Your task to perform on an android device: Do I have any events today? Image 0: 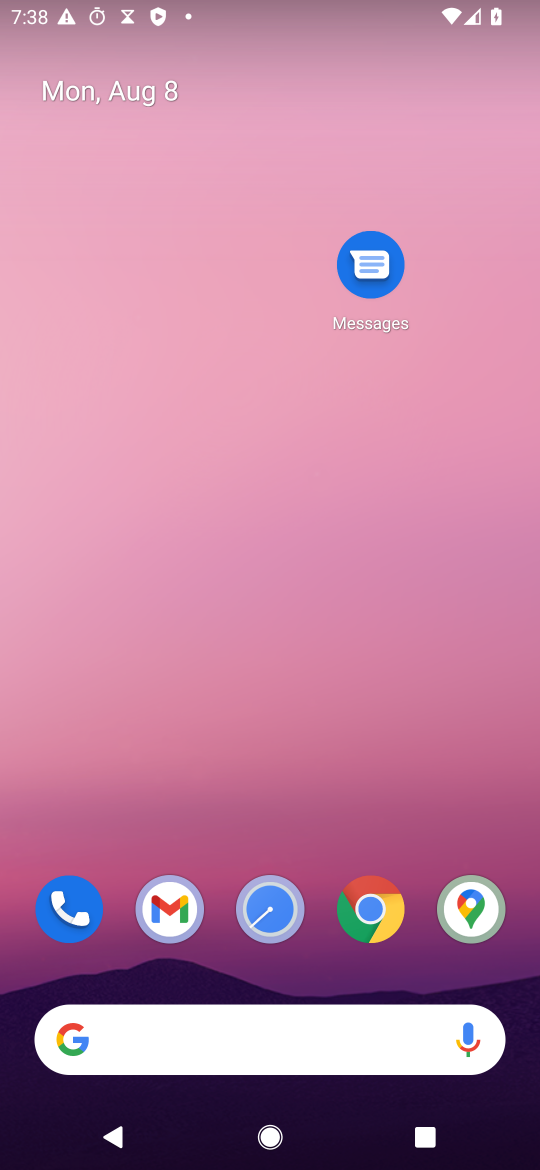
Step 0: press home button
Your task to perform on an android device: Do I have any events today? Image 1: 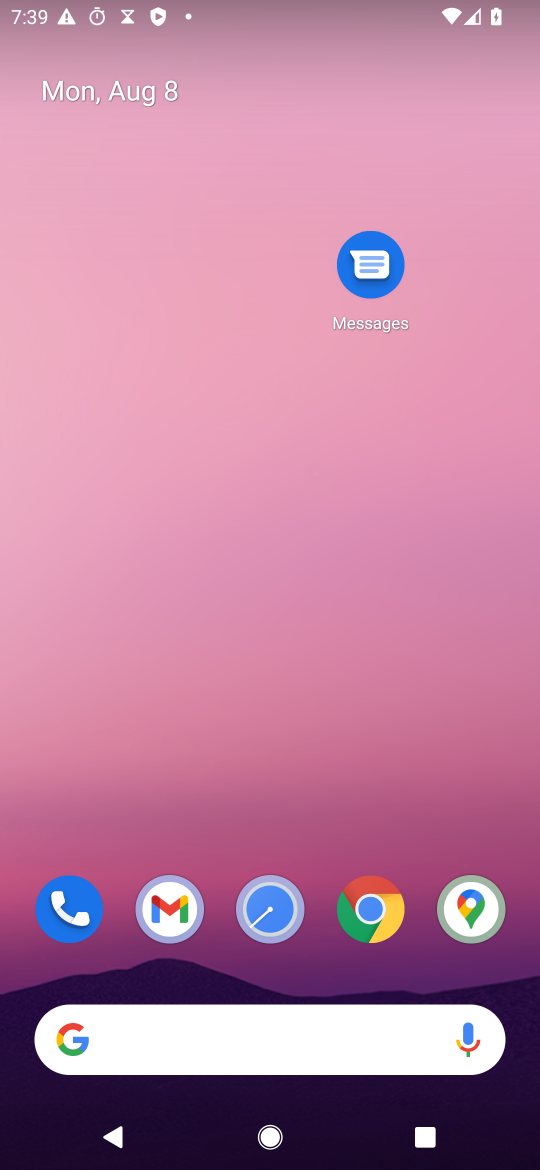
Step 1: drag from (204, 938) to (303, 210)
Your task to perform on an android device: Do I have any events today? Image 2: 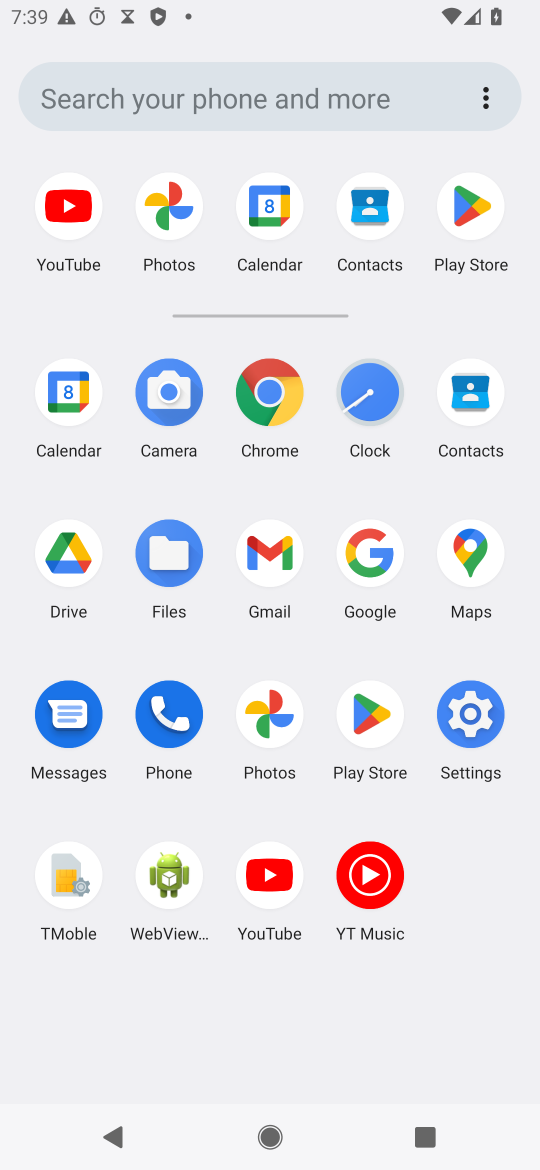
Step 2: click (274, 222)
Your task to perform on an android device: Do I have any events today? Image 3: 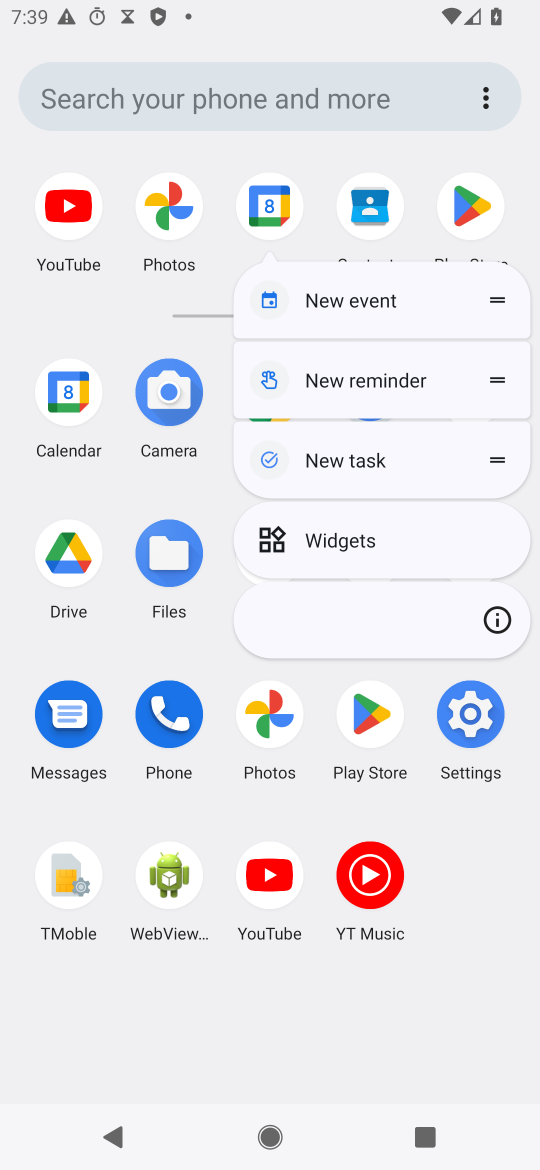
Step 3: click (264, 203)
Your task to perform on an android device: Do I have any events today? Image 4: 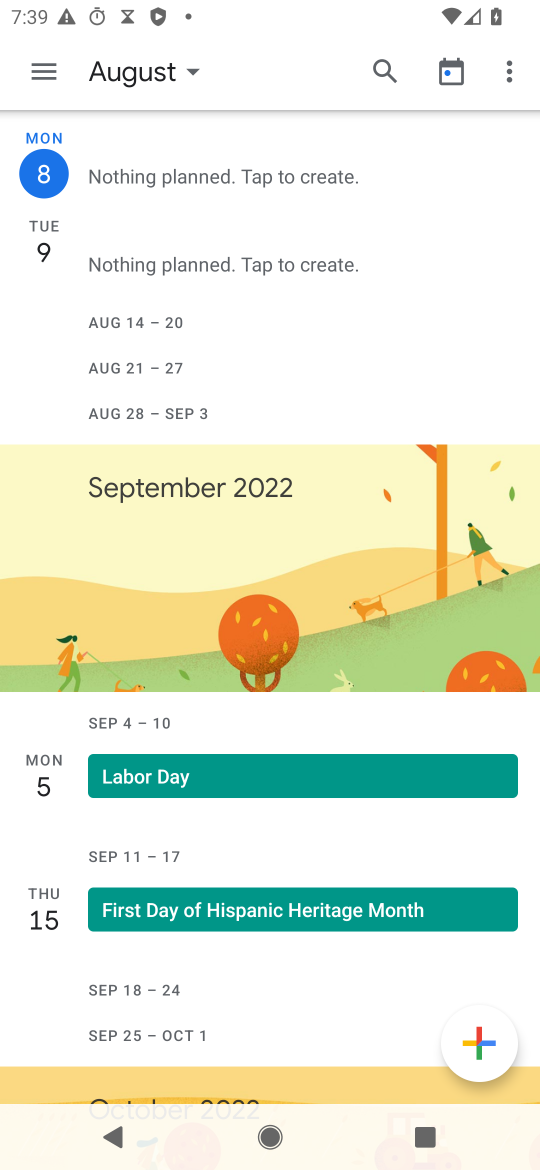
Step 4: task complete